Your task to perform on an android device: Check the weather Image 0: 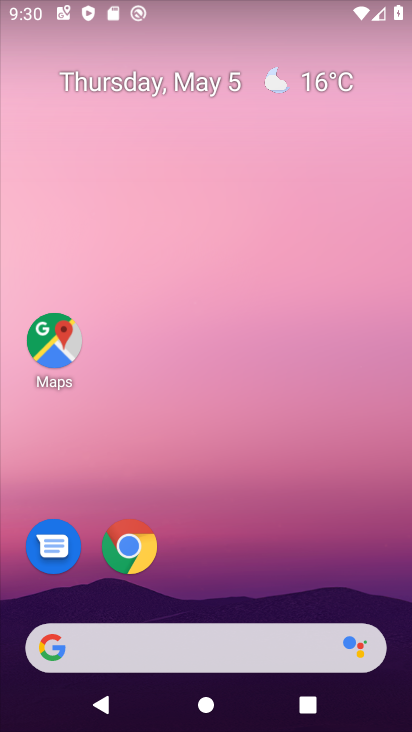
Step 0: drag from (309, 603) to (191, 230)
Your task to perform on an android device: Check the weather Image 1: 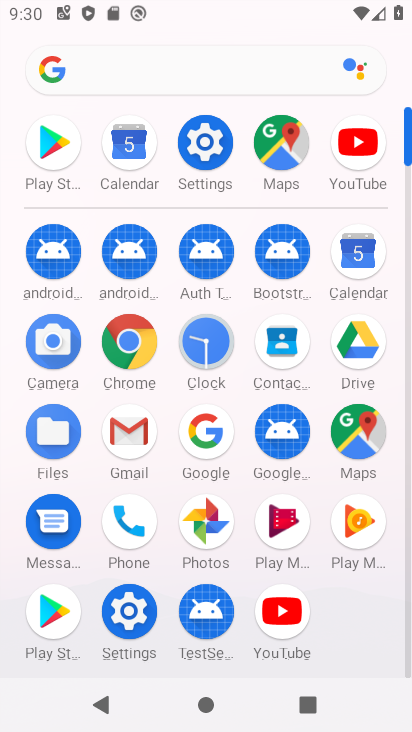
Step 1: click (118, 80)
Your task to perform on an android device: Check the weather Image 2: 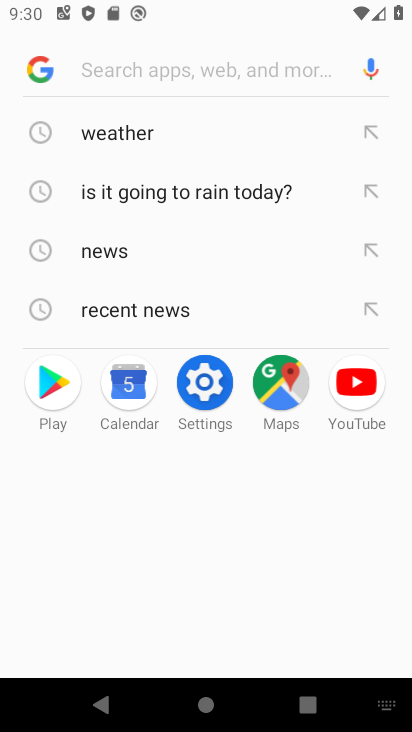
Step 2: type "weather"
Your task to perform on an android device: Check the weather Image 3: 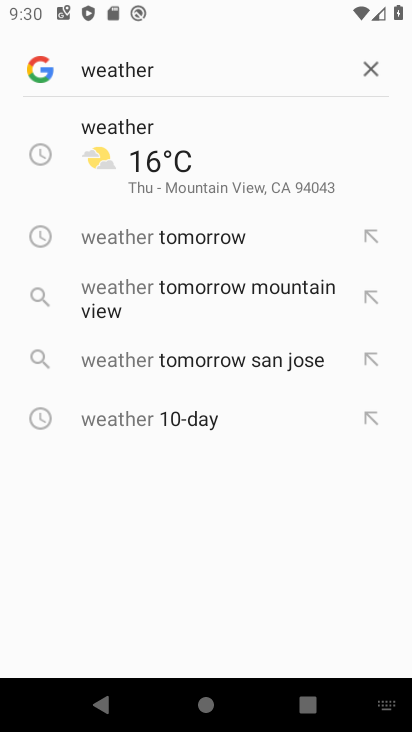
Step 3: click (126, 140)
Your task to perform on an android device: Check the weather Image 4: 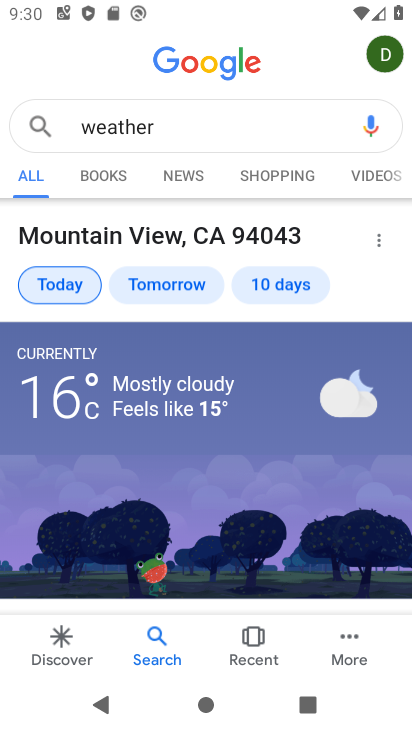
Step 4: task complete